Your task to perform on an android device: Open the map Image 0: 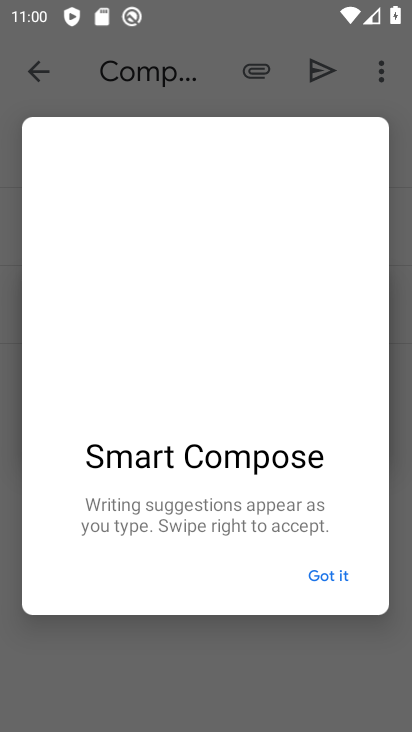
Step 0: click (329, 578)
Your task to perform on an android device: Open the map Image 1: 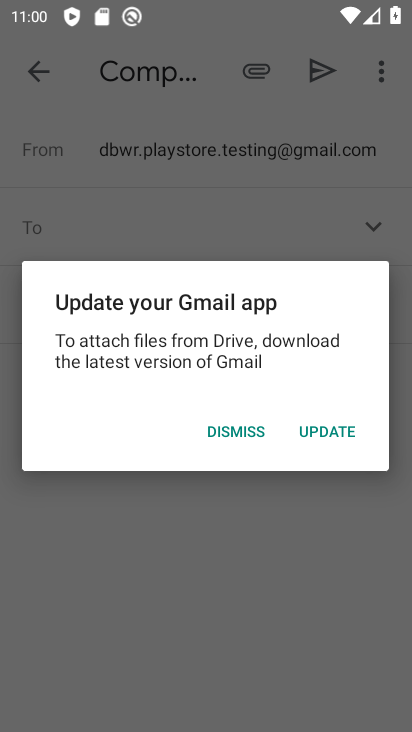
Step 1: click (227, 443)
Your task to perform on an android device: Open the map Image 2: 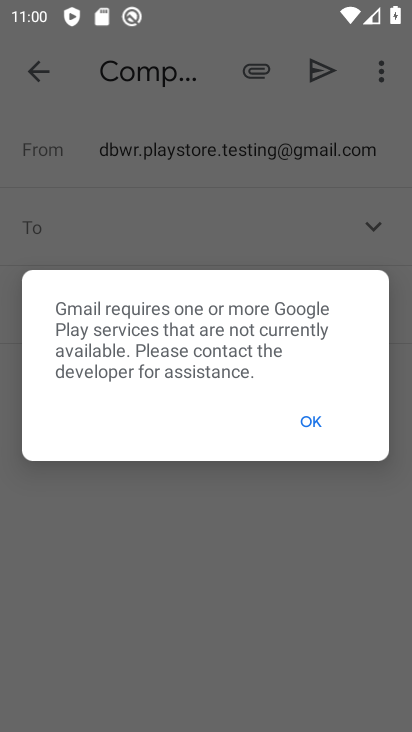
Step 2: click (228, 434)
Your task to perform on an android device: Open the map Image 3: 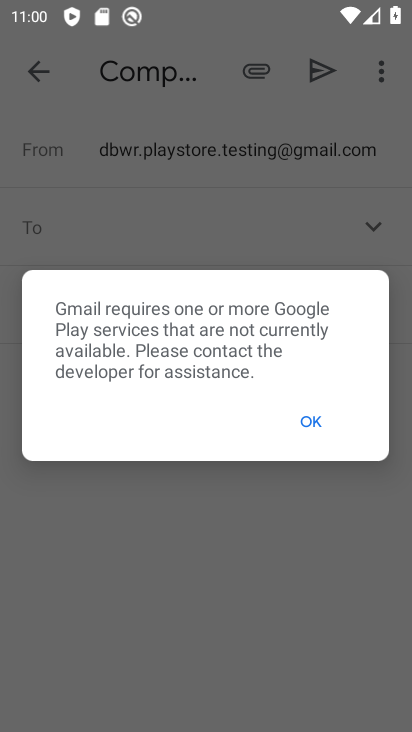
Step 3: click (312, 419)
Your task to perform on an android device: Open the map Image 4: 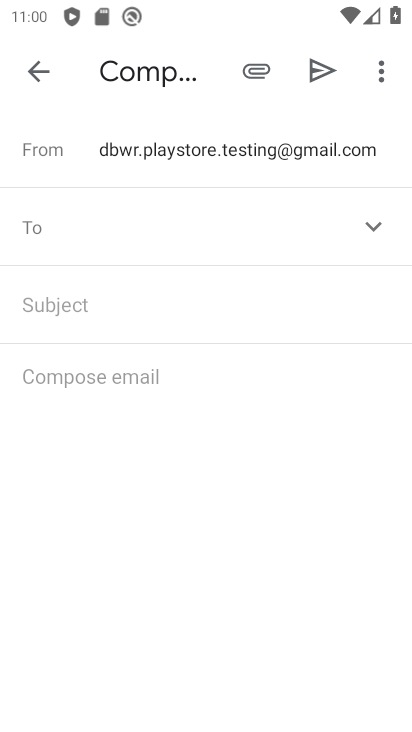
Step 4: click (28, 75)
Your task to perform on an android device: Open the map Image 5: 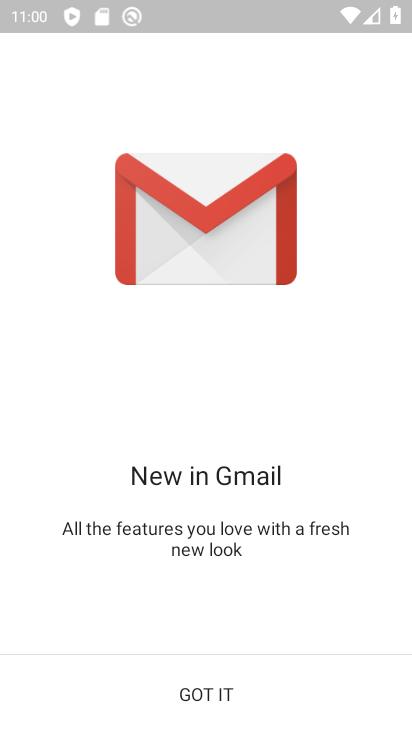
Step 5: click (201, 686)
Your task to perform on an android device: Open the map Image 6: 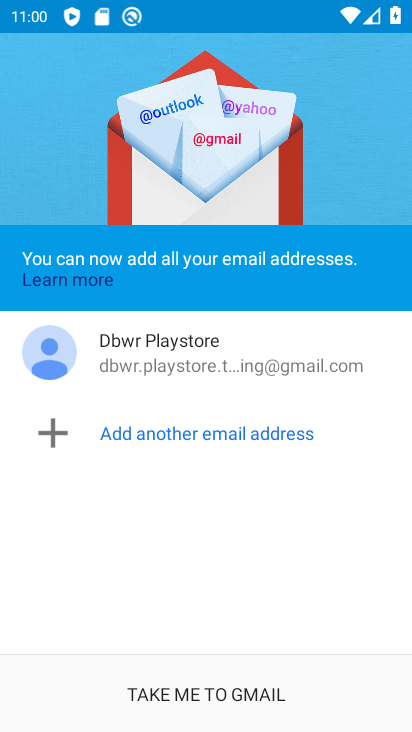
Step 6: press home button
Your task to perform on an android device: Open the map Image 7: 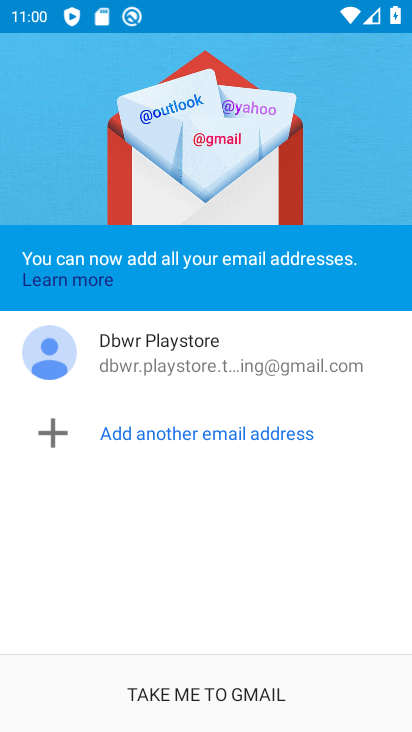
Step 7: press home button
Your task to perform on an android device: Open the map Image 8: 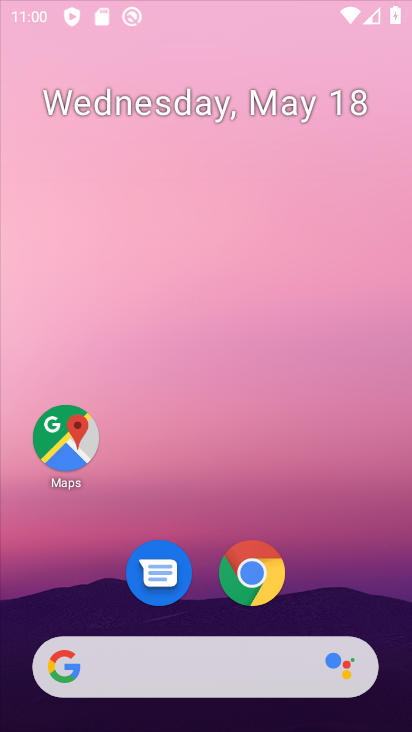
Step 8: press home button
Your task to perform on an android device: Open the map Image 9: 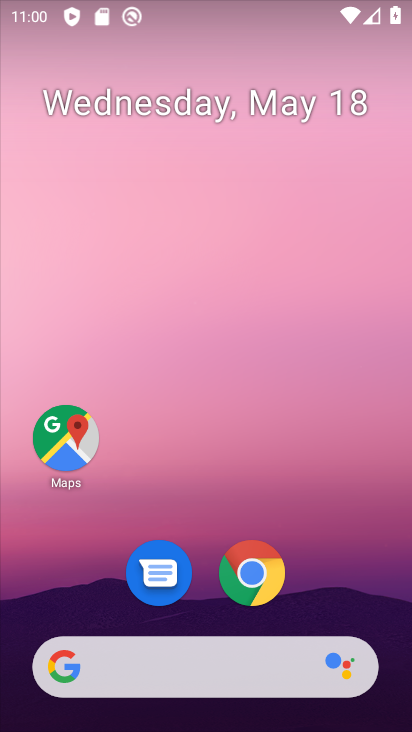
Step 9: drag from (335, 694) to (225, 0)
Your task to perform on an android device: Open the map Image 10: 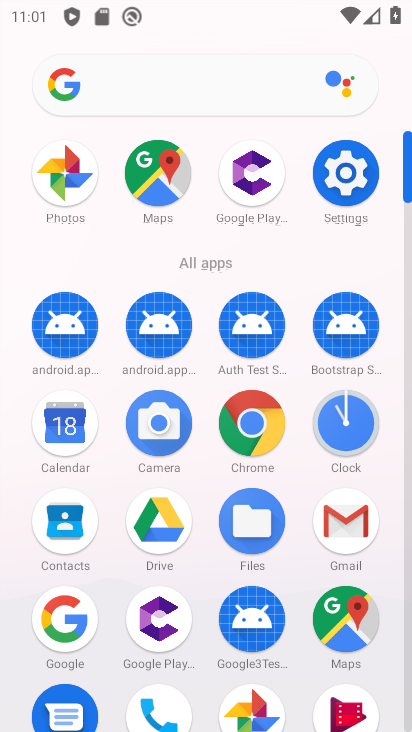
Step 10: click (348, 617)
Your task to perform on an android device: Open the map Image 11: 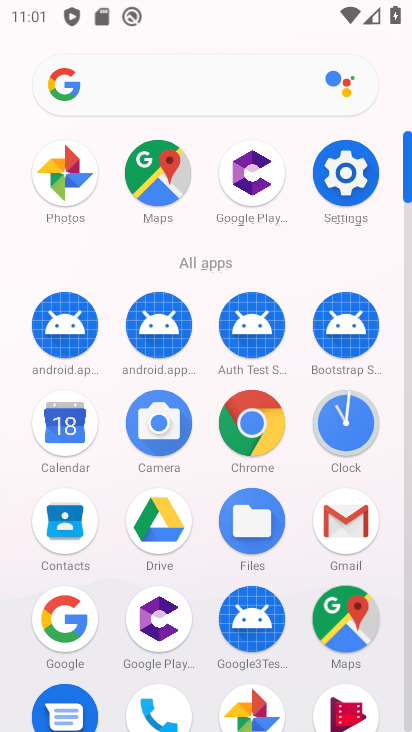
Step 11: click (348, 606)
Your task to perform on an android device: Open the map Image 12: 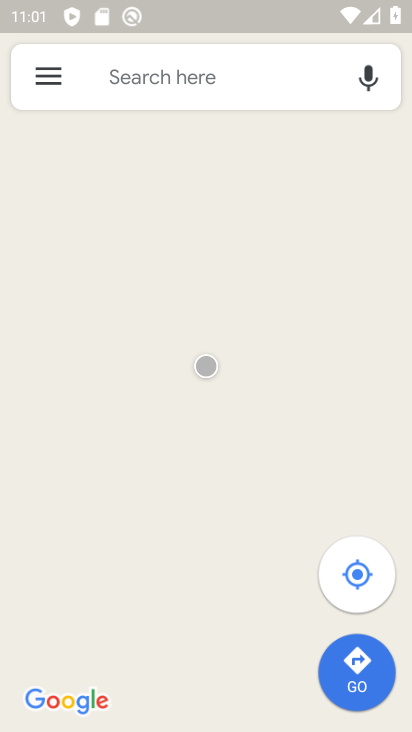
Step 12: click (88, 90)
Your task to perform on an android device: Open the map Image 13: 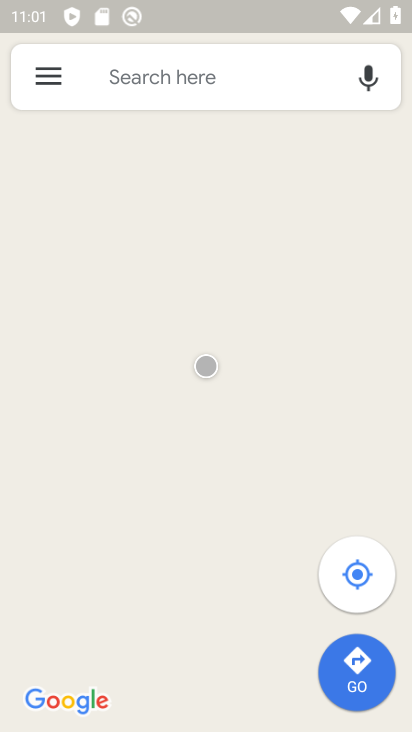
Step 13: click (89, 89)
Your task to perform on an android device: Open the map Image 14: 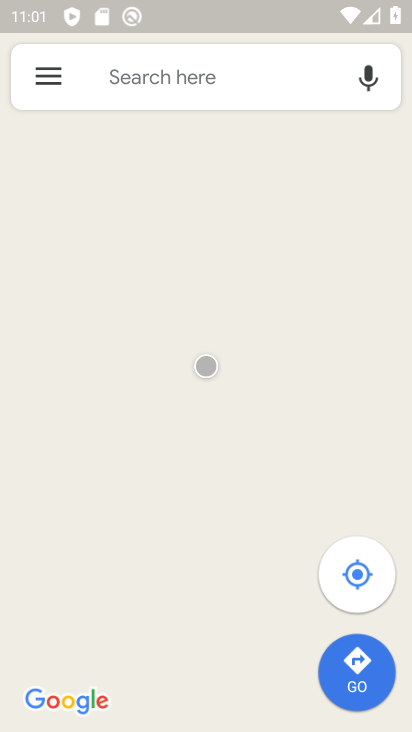
Step 14: click (96, 87)
Your task to perform on an android device: Open the map Image 15: 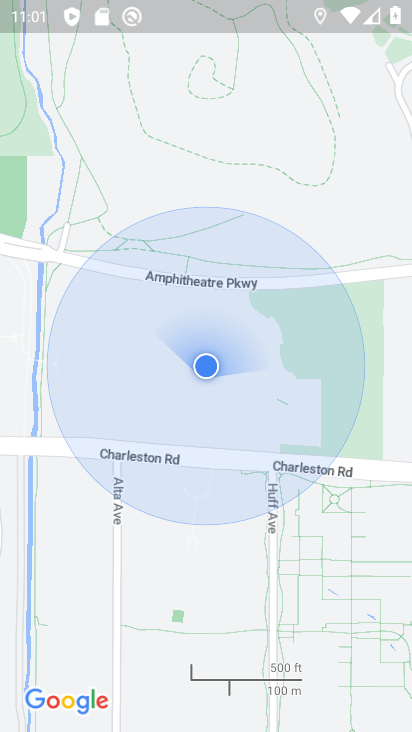
Step 15: task complete